Your task to perform on an android device: View the shopping cart on amazon. Search for razer blade on amazon, select the first entry, and add it to the cart. Image 0: 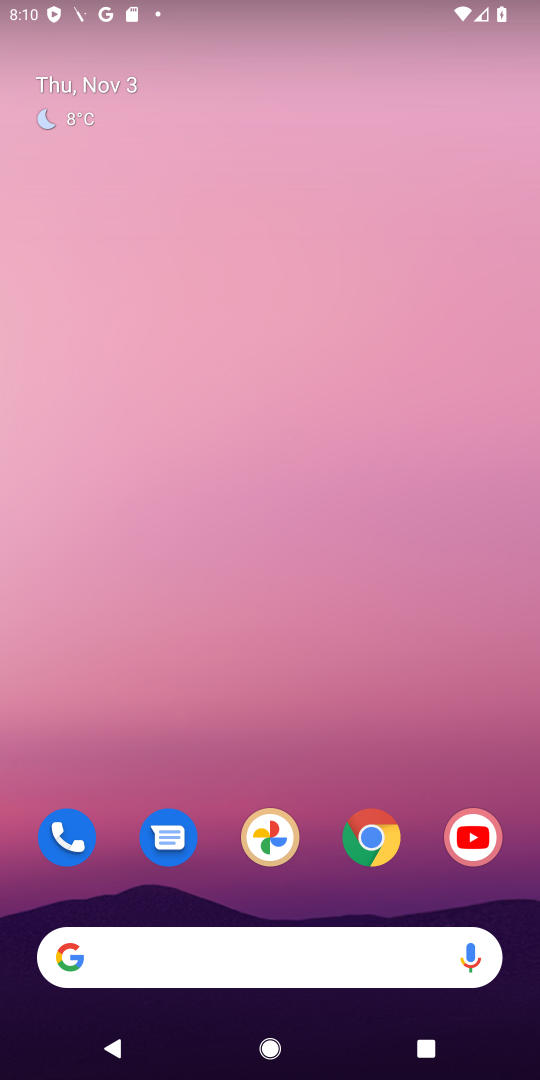
Step 0: click (377, 836)
Your task to perform on an android device: View the shopping cart on amazon. Search for razer blade on amazon, select the first entry, and add it to the cart. Image 1: 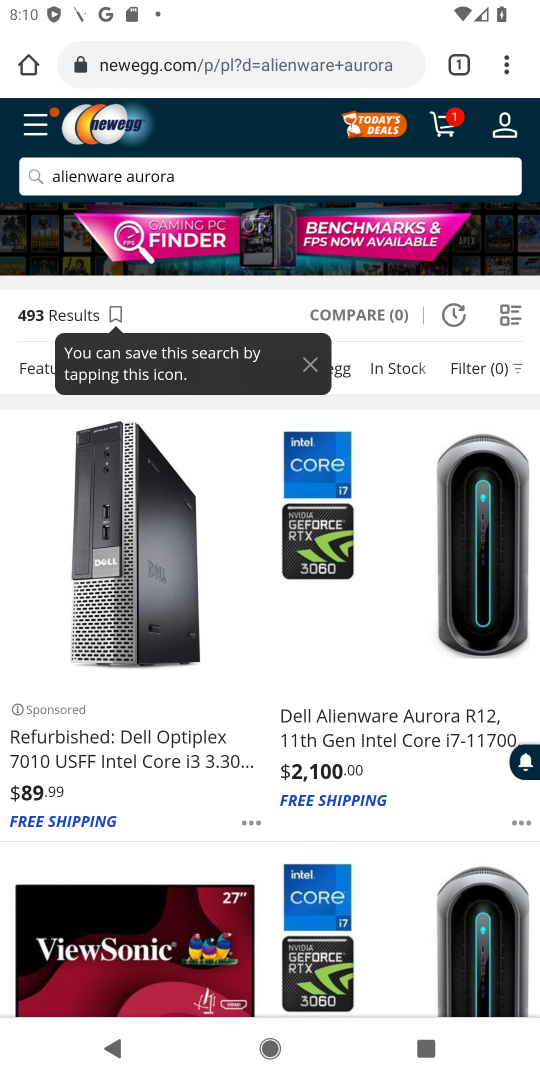
Step 1: click (252, 63)
Your task to perform on an android device: View the shopping cart on amazon. Search for razer blade on amazon, select the first entry, and add it to the cart. Image 2: 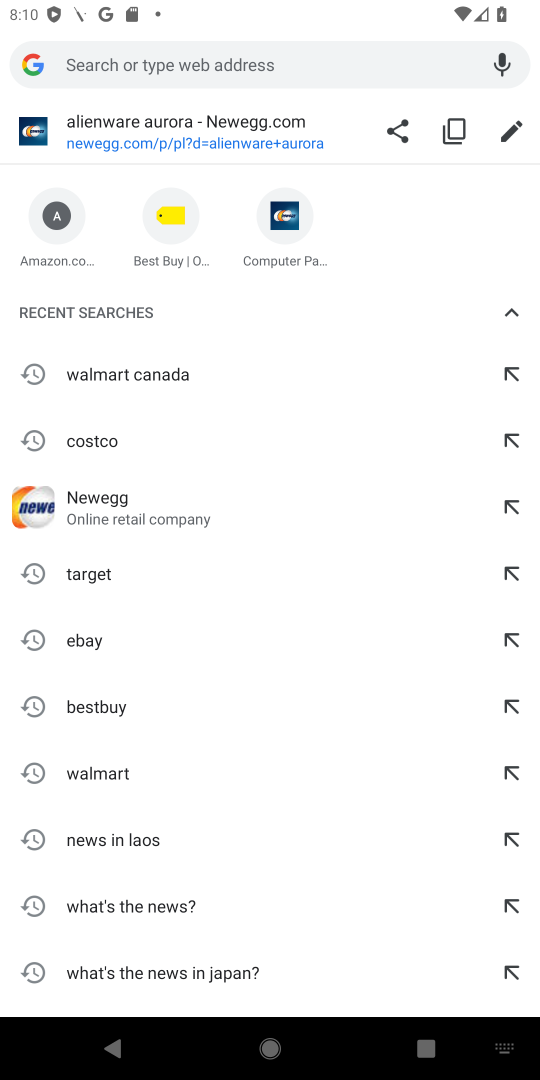
Step 2: click (194, 61)
Your task to perform on an android device: View the shopping cart on amazon. Search for razer blade on amazon, select the first entry, and add it to the cart. Image 3: 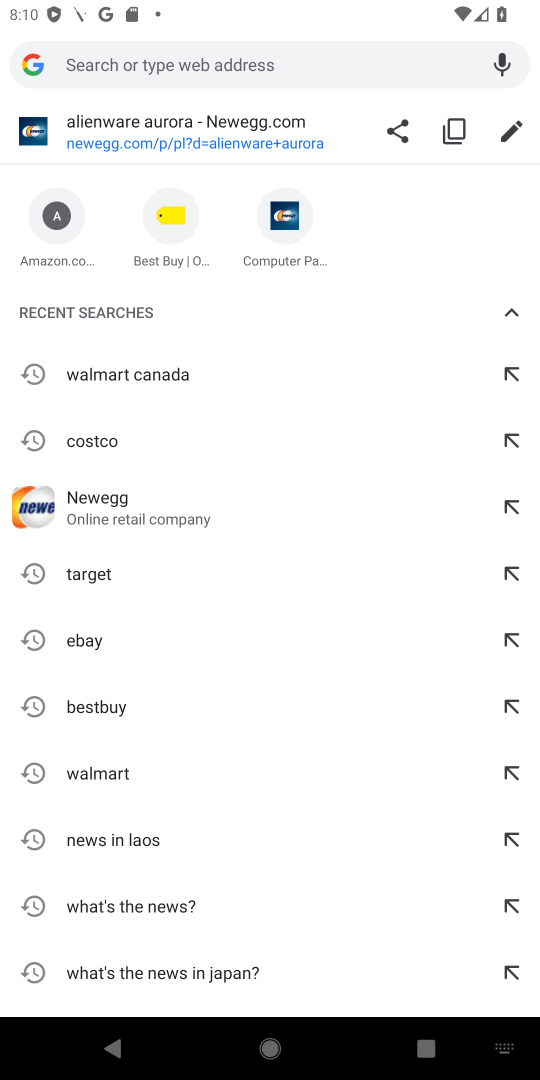
Step 3: type " amazon"
Your task to perform on an android device: View the shopping cart on amazon. Search for razer blade on amazon, select the first entry, and add it to the cart. Image 4: 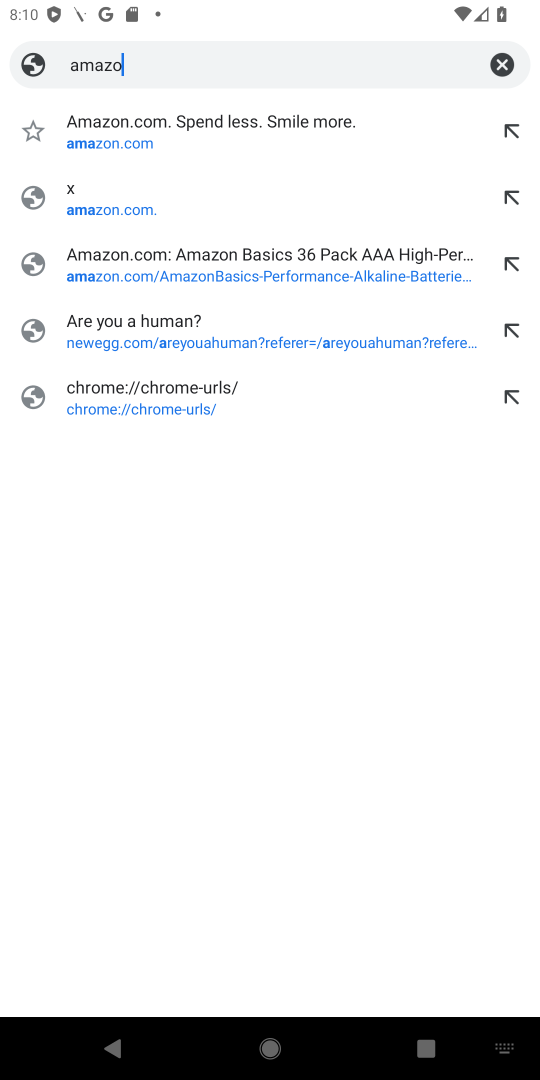
Step 4: press enter
Your task to perform on an android device: View the shopping cart on amazon. Search for razer blade on amazon, select the first entry, and add it to the cart. Image 5: 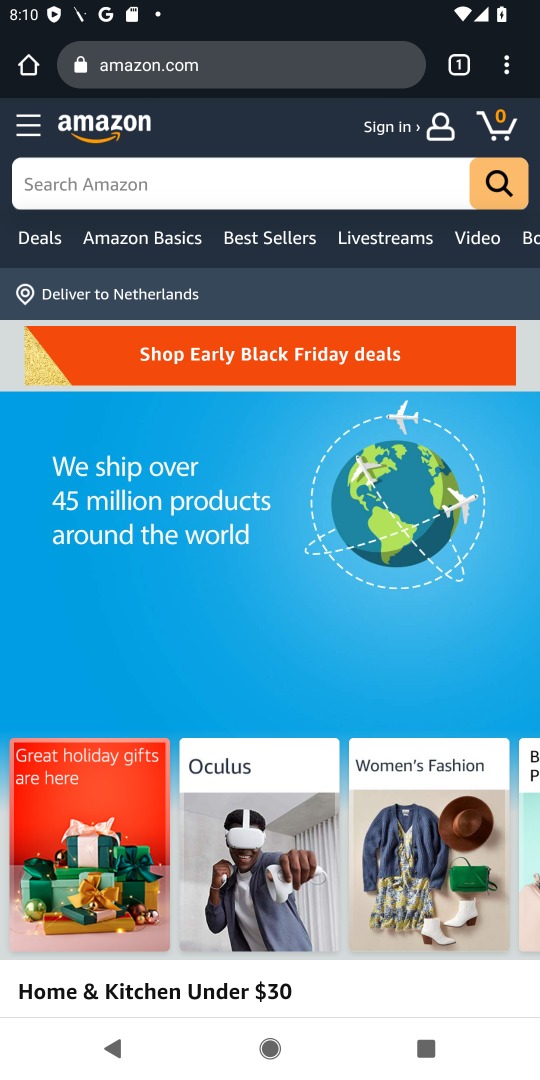
Step 5: click (214, 169)
Your task to perform on an android device: View the shopping cart on amazon. Search for razer blade on amazon, select the first entry, and add it to the cart. Image 6: 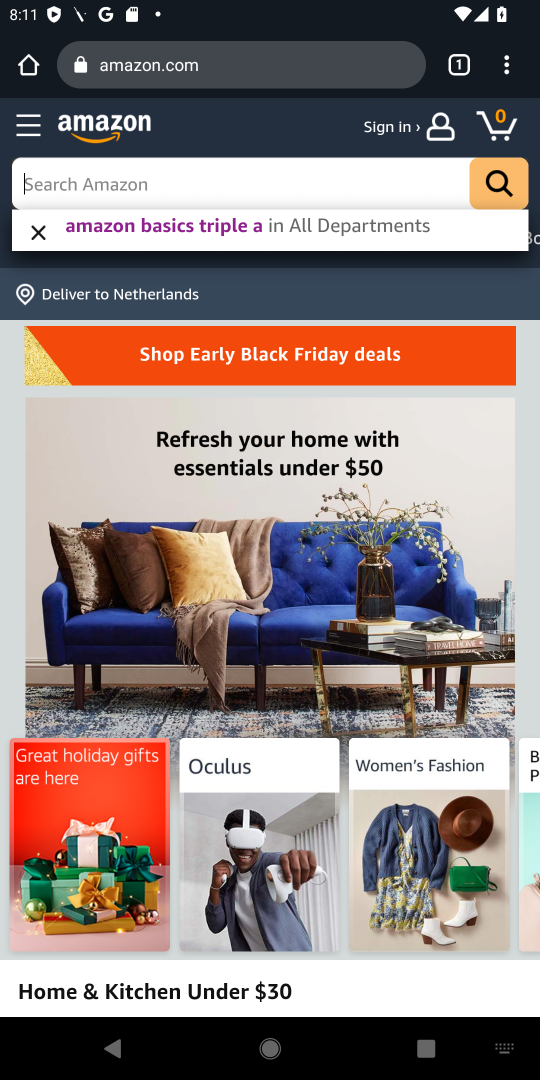
Step 6: type "razer blade"
Your task to perform on an android device: View the shopping cart on amazon. Search for razer blade on amazon, select the first entry, and add it to the cart. Image 7: 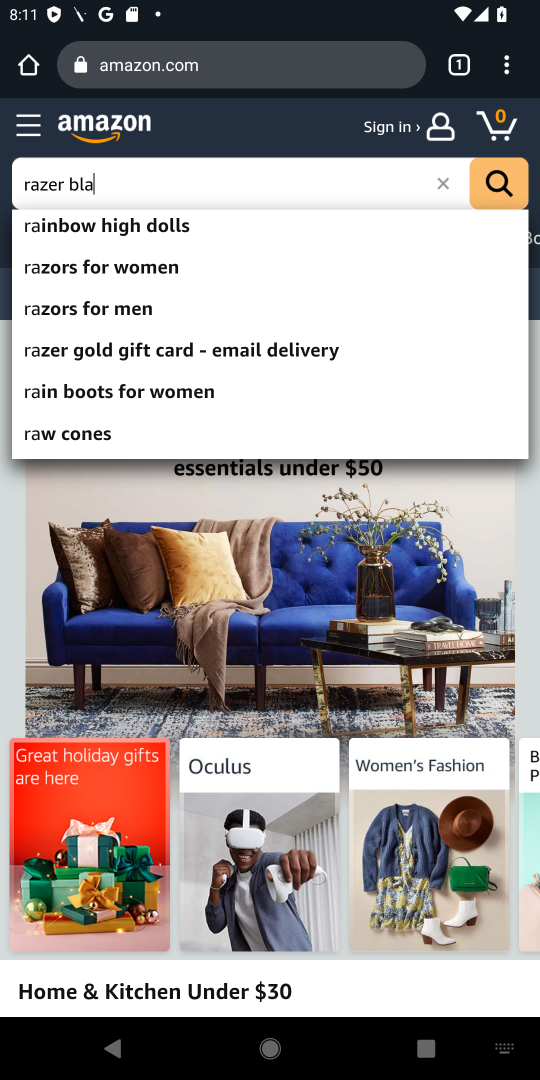
Step 7: press enter
Your task to perform on an android device: View the shopping cart on amazon. Search for razer blade on amazon, select the first entry, and add it to the cart. Image 8: 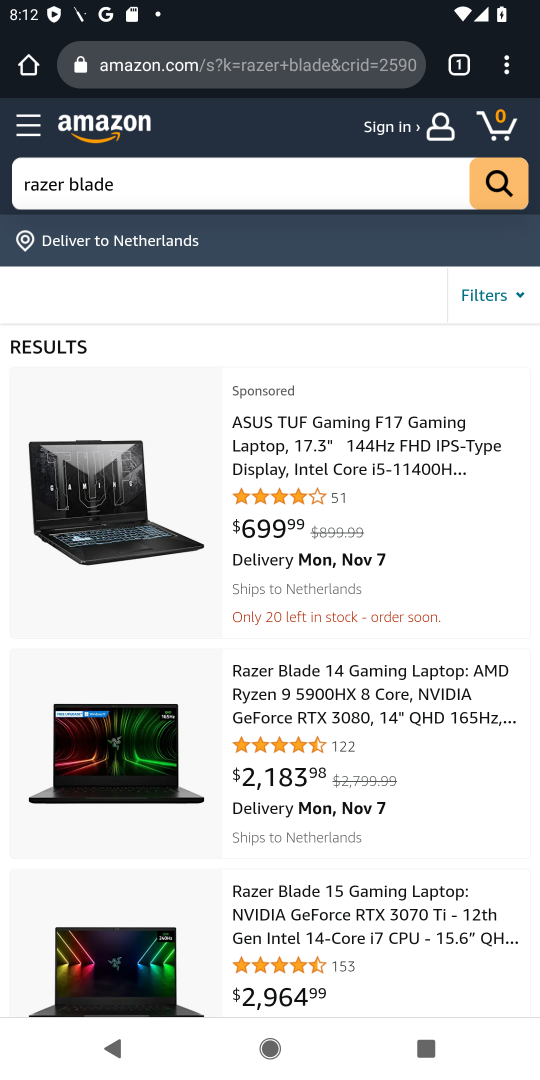
Step 8: task complete